Your task to perform on an android device: Open wifi settings Image 0: 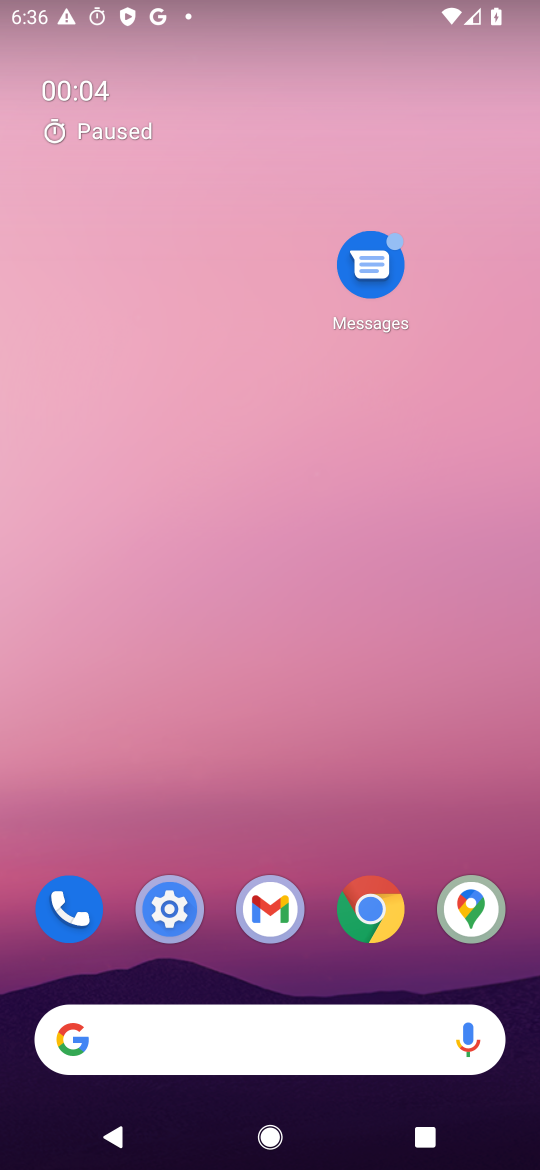
Step 0: click (164, 905)
Your task to perform on an android device: Open wifi settings Image 1: 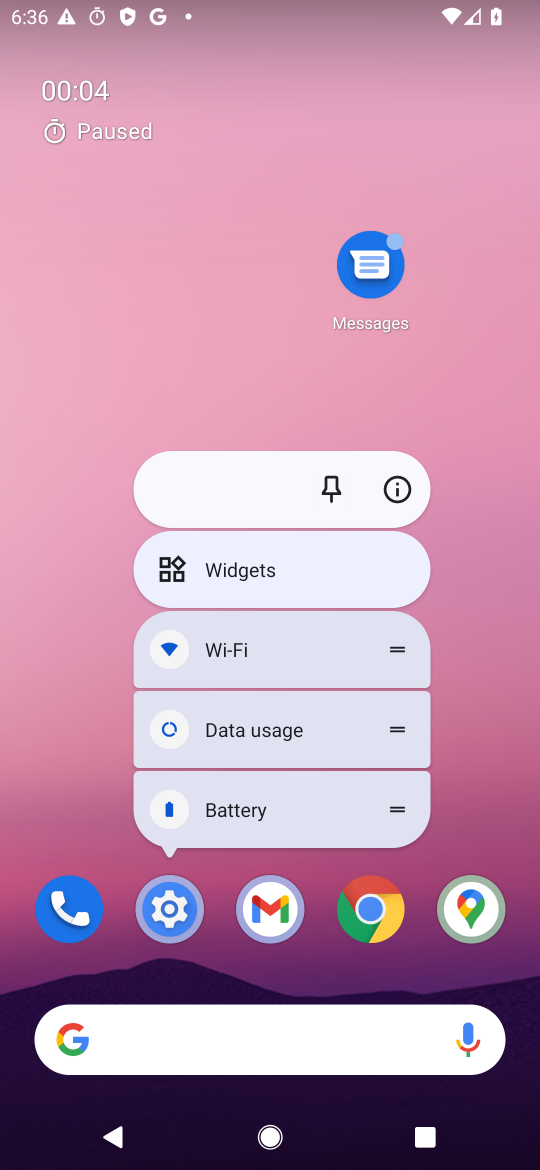
Step 1: click (164, 905)
Your task to perform on an android device: Open wifi settings Image 2: 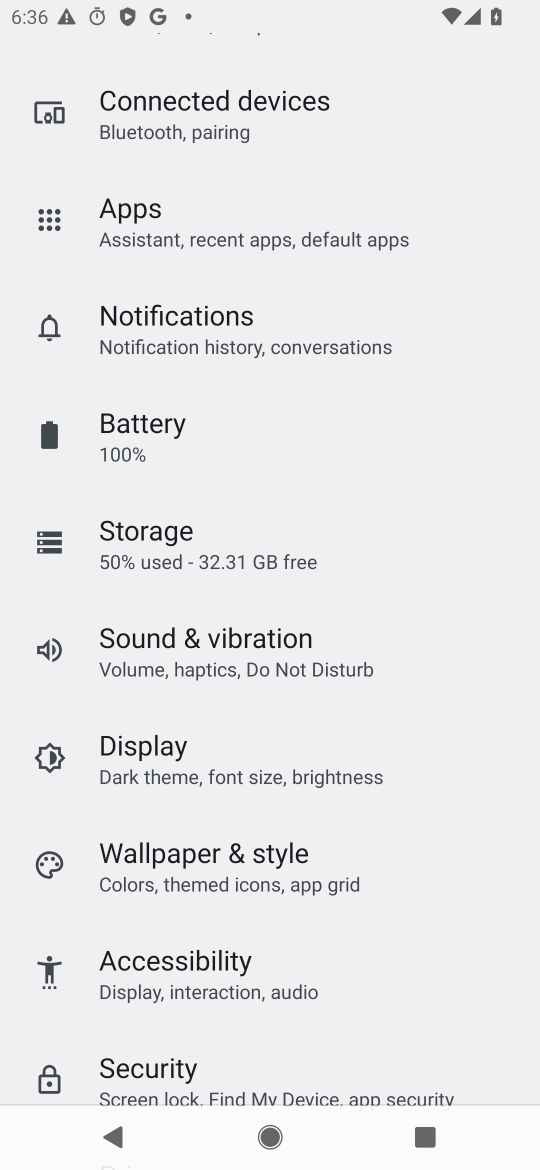
Step 2: drag from (336, 161) to (213, 933)
Your task to perform on an android device: Open wifi settings Image 3: 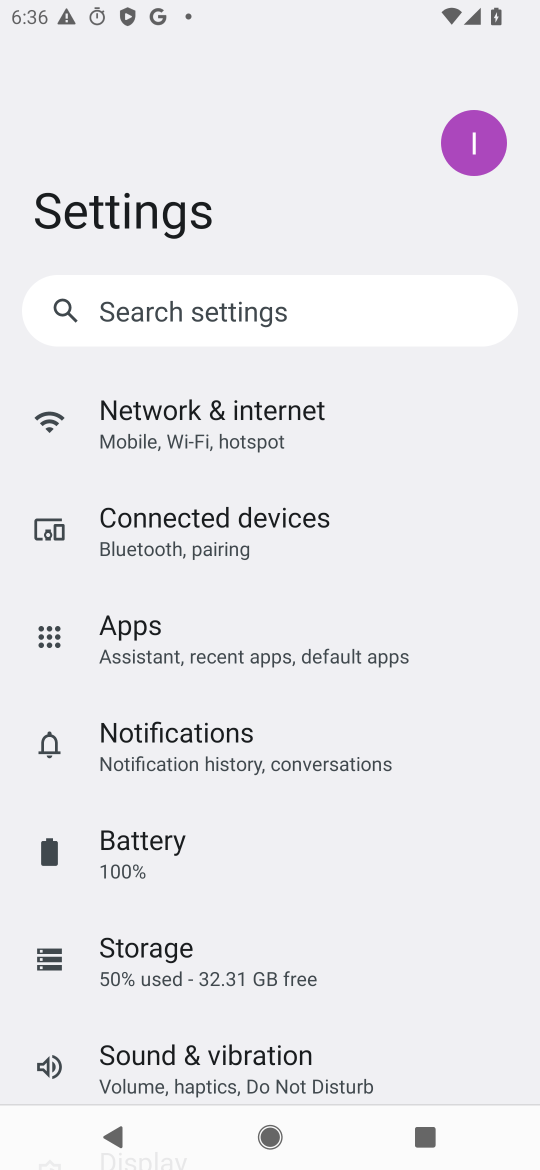
Step 3: click (242, 422)
Your task to perform on an android device: Open wifi settings Image 4: 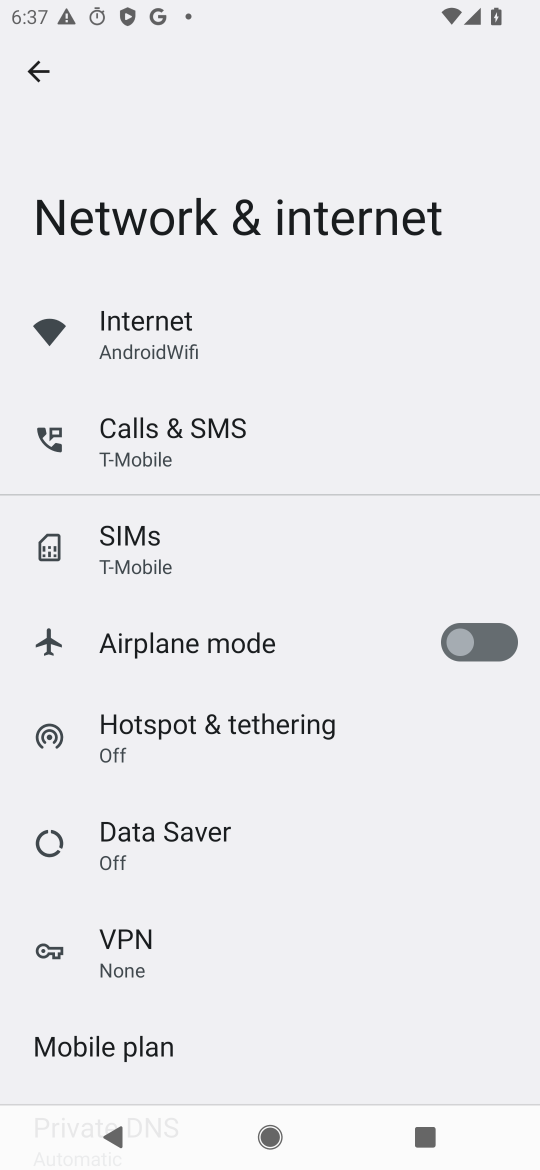
Step 4: click (154, 340)
Your task to perform on an android device: Open wifi settings Image 5: 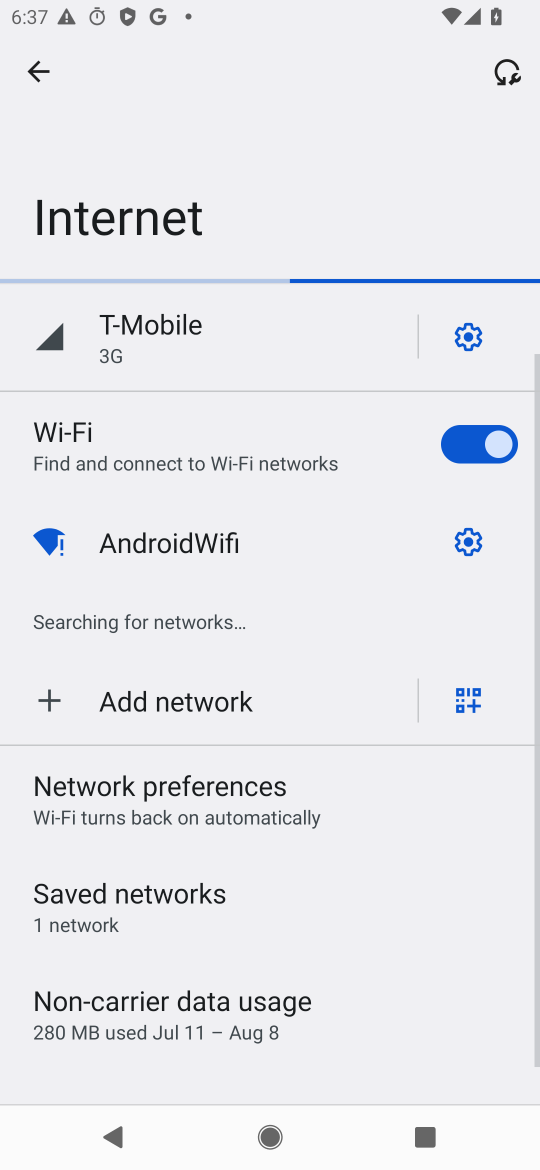
Step 5: click (466, 541)
Your task to perform on an android device: Open wifi settings Image 6: 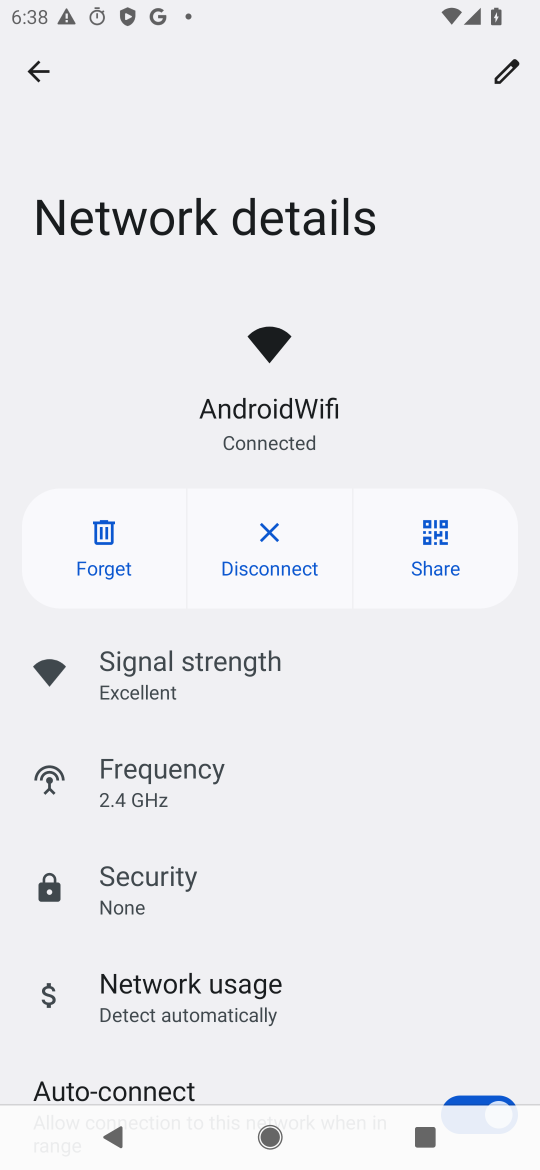
Step 6: task complete